Your task to perform on an android device: Show me recent news Image 0: 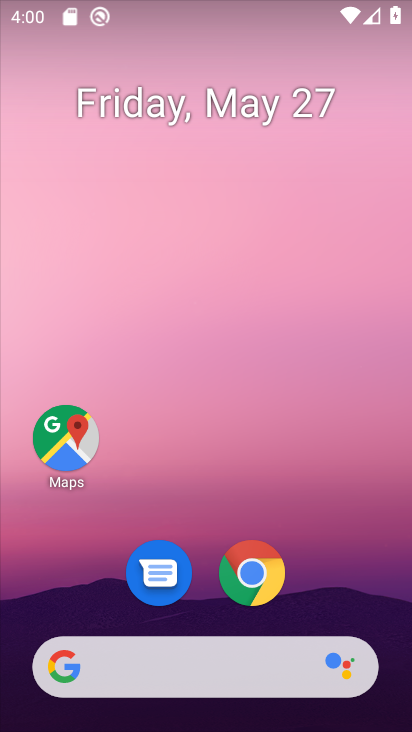
Step 0: click (251, 679)
Your task to perform on an android device: Show me recent news Image 1: 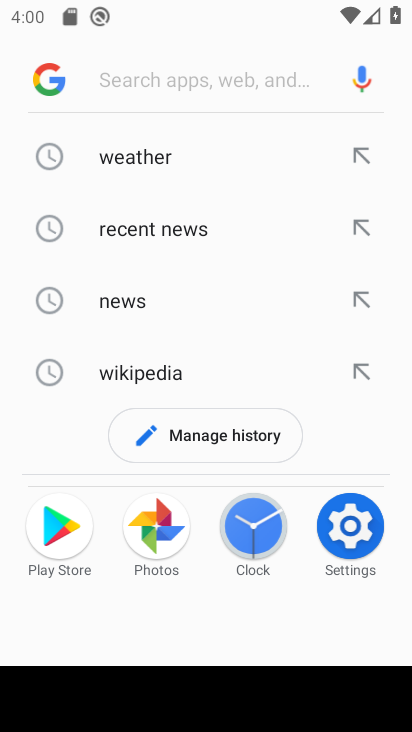
Step 1: click (56, 230)
Your task to perform on an android device: Show me recent news Image 2: 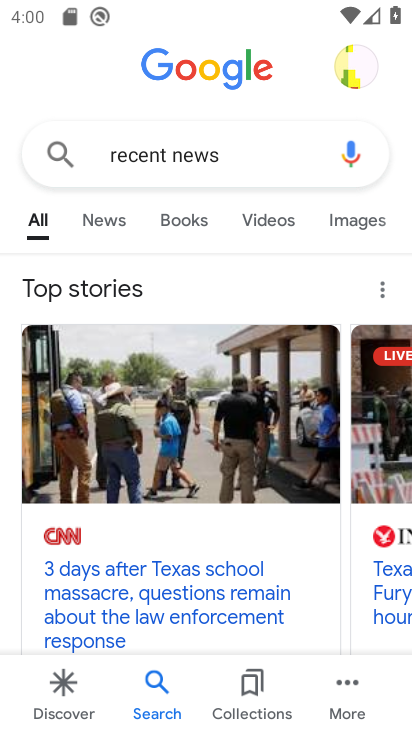
Step 2: drag from (193, 530) to (193, 288)
Your task to perform on an android device: Show me recent news Image 3: 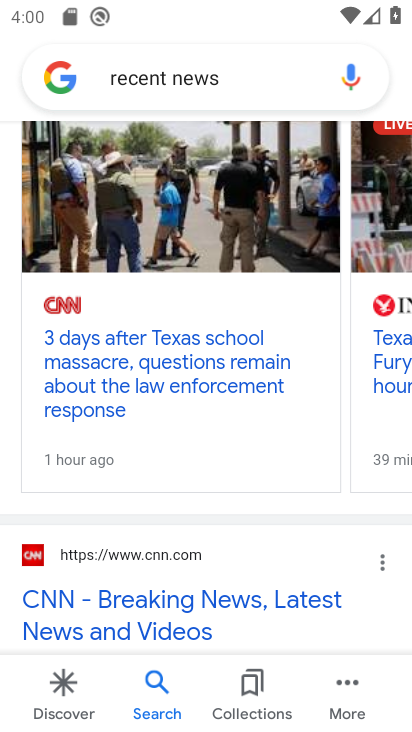
Step 3: drag from (324, 350) to (95, 385)
Your task to perform on an android device: Show me recent news Image 4: 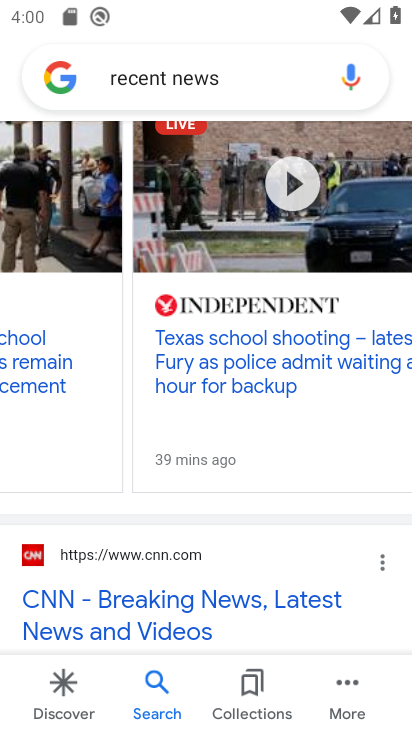
Step 4: click (260, 355)
Your task to perform on an android device: Show me recent news Image 5: 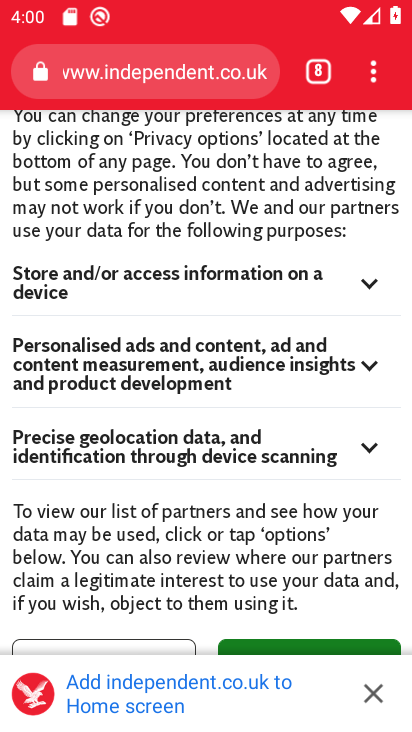
Step 5: task complete